Your task to perform on an android device: check storage Image 0: 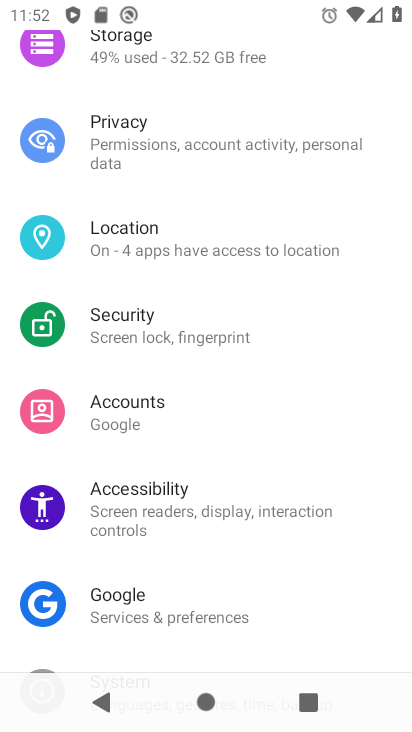
Step 0: press home button
Your task to perform on an android device: check storage Image 1: 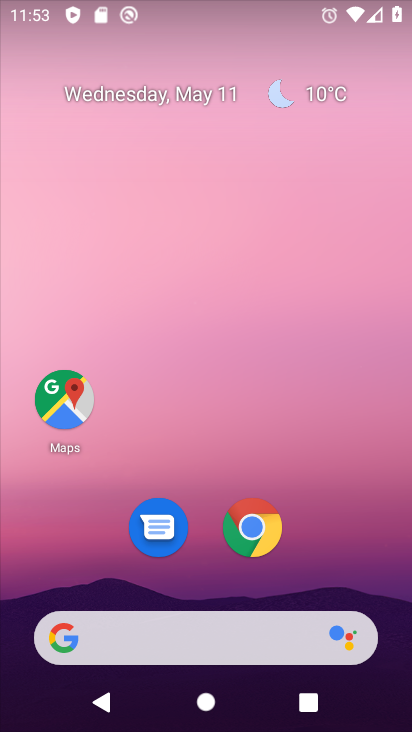
Step 1: drag from (199, 583) to (301, 13)
Your task to perform on an android device: check storage Image 2: 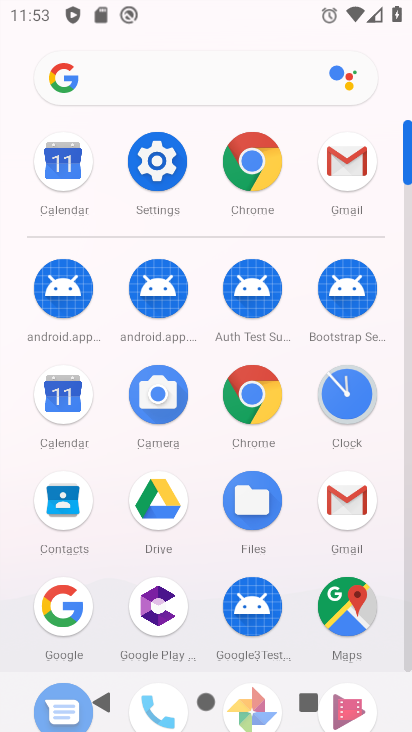
Step 2: click (168, 166)
Your task to perform on an android device: check storage Image 3: 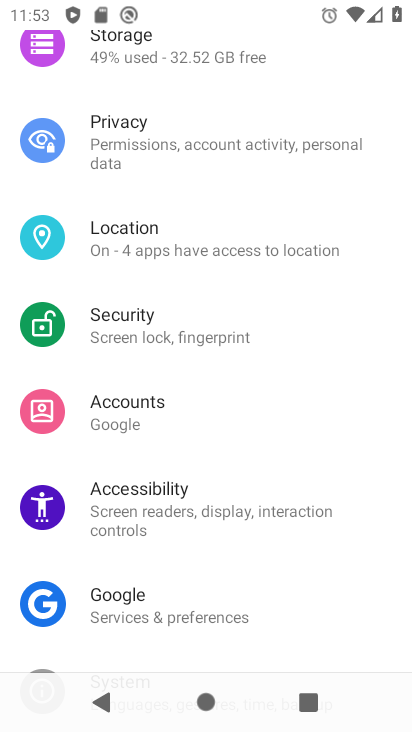
Step 3: drag from (139, 527) to (205, 262)
Your task to perform on an android device: check storage Image 4: 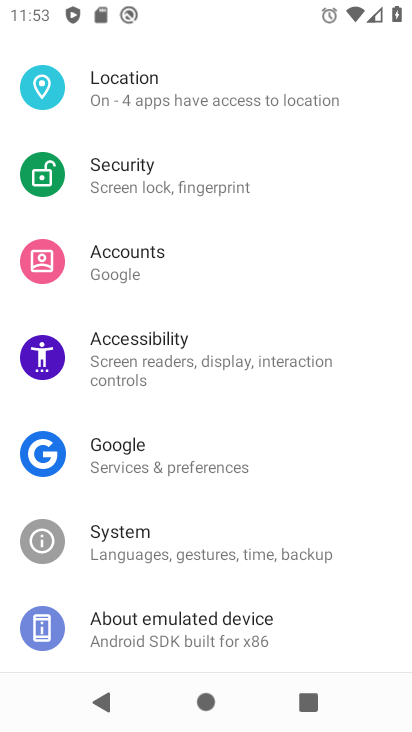
Step 4: drag from (161, 604) to (200, 312)
Your task to perform on an android device: check storage Image 5: 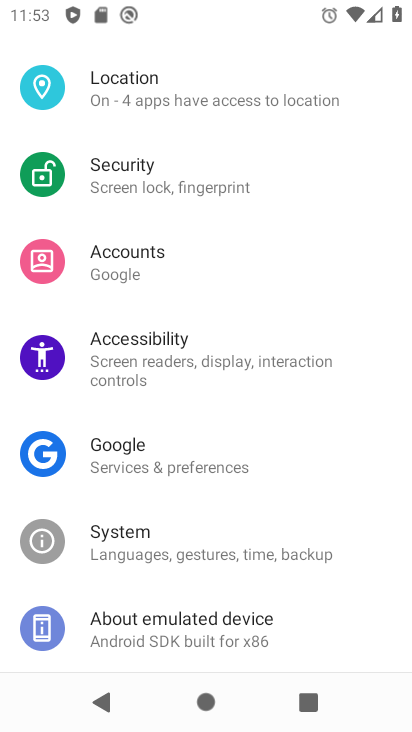
Step 5: drag from (212, 259) to (204, 507)
Your task to perform on an android device: check storage Image 6: 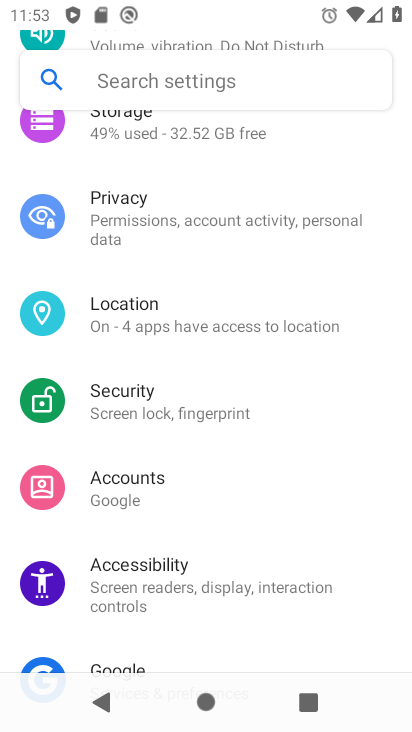
Step 6: drag from (174, 168) to (150, 554)
Your task to perform on an android device: check storage Image 7: 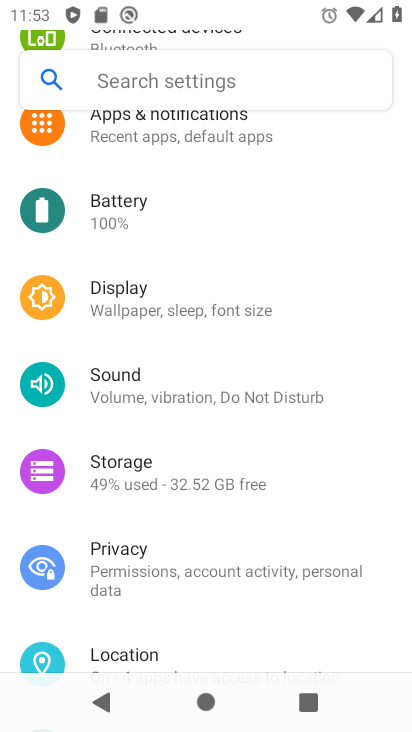
Step 7: click (168, 480)
Your task to perform on an android device: check storage Image 8: 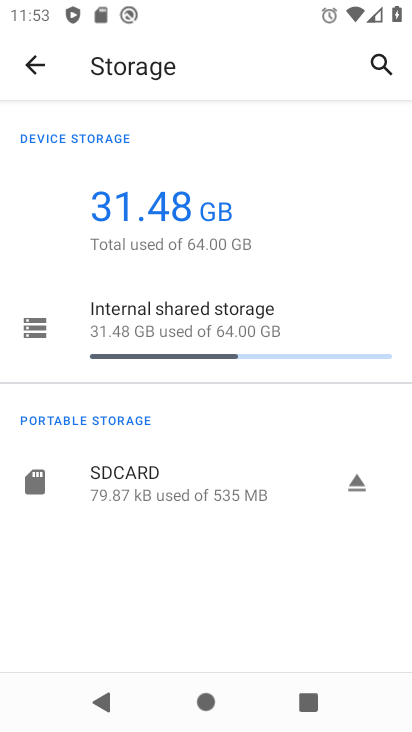
Step 8: click (168, 335)
Your task to perform on an android device: check storage Image 9: 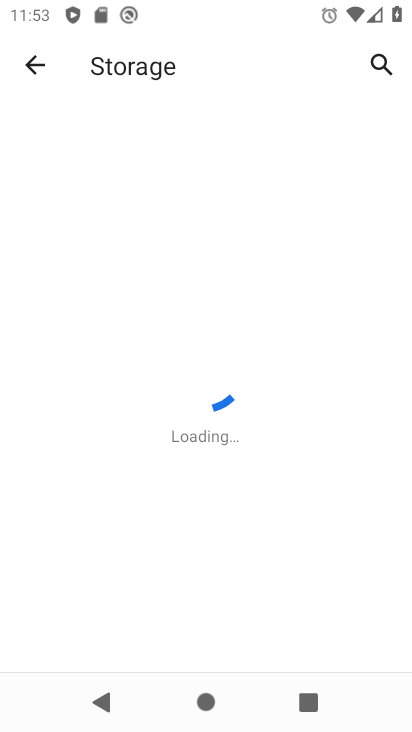
Step 9: task complete